Your task to perform on an android device: Go to eBay Image 0: 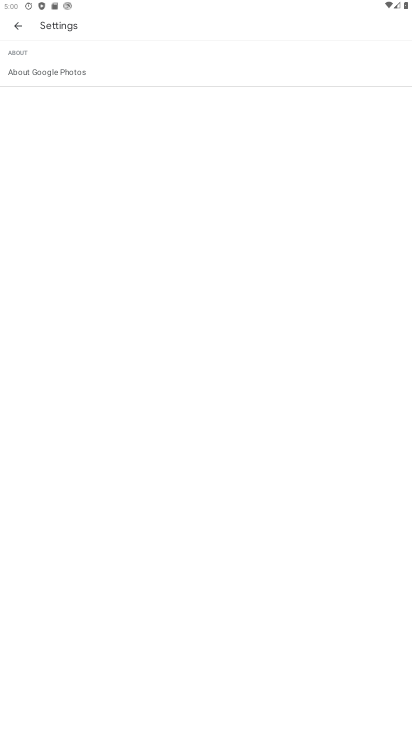
Step 0: press home button
Your task to perform on an android device: Go to eBay Image 1: 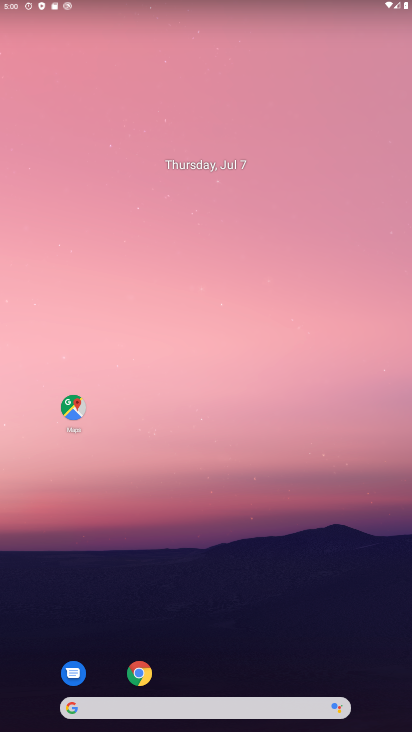
Step 1: drag from (218, 708) to (182, 159)
Your task to perform on an android device: Go to eBay Image 2: 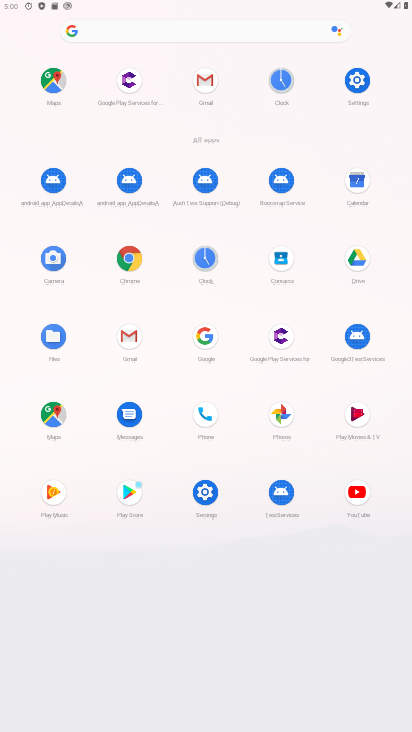
Step 2: click (127, 254)
Your task to perform on an android device: Go to eBay Image 3: 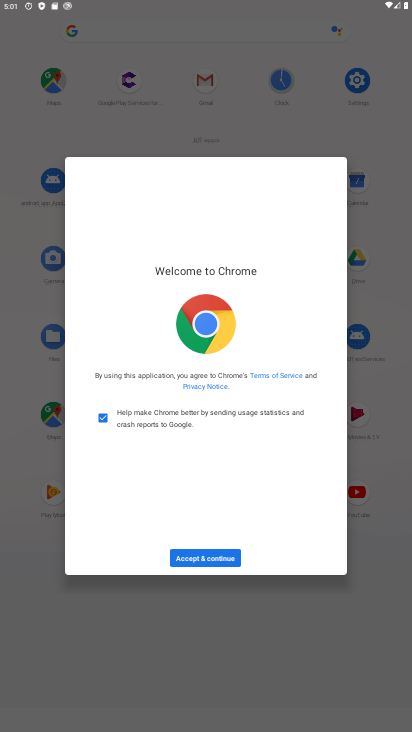
Step 3: click (212, 550)
Your task to perform on an android device: Go to eBay Image 4: 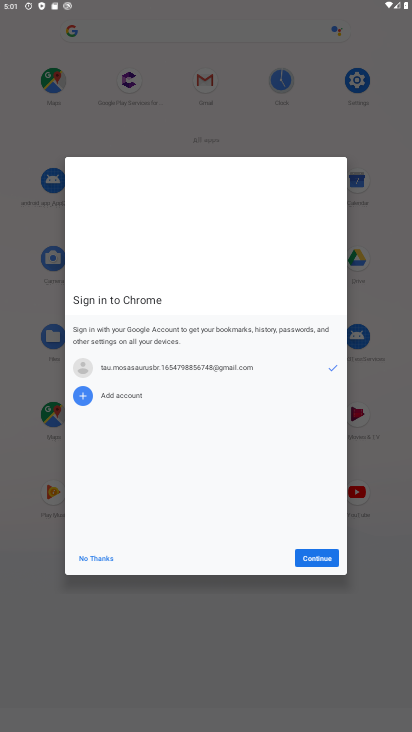
Step 4: click (76, 557)
Your task to perform on an android device: Go to eBay Image 5: 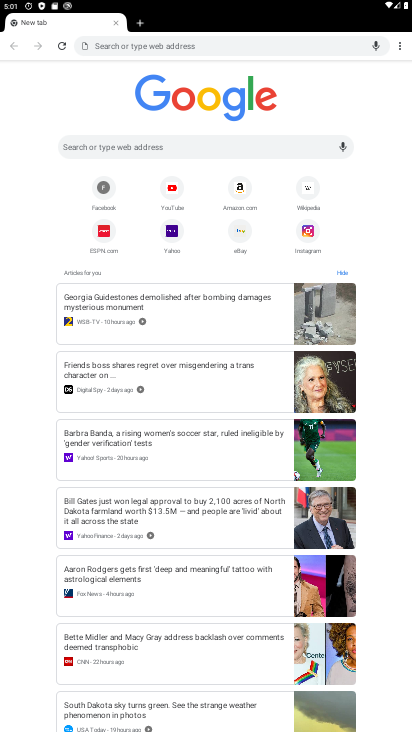
Step 5: click (240, 239)
Your task to perform on an android device: Go to eBay Image 6: 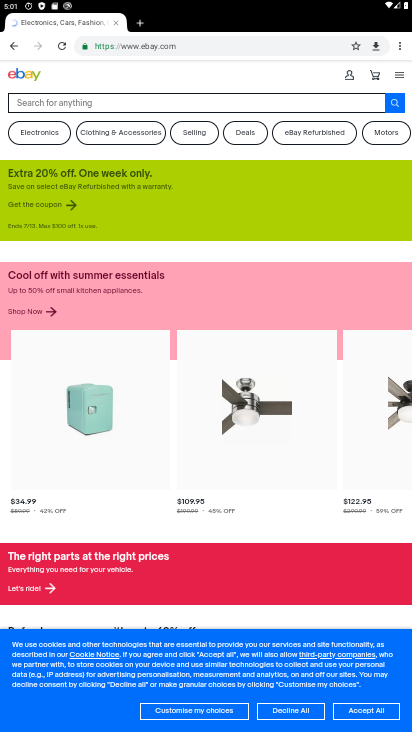
Step 6: task complete